Your task to perform on an android device: Open sound settings Image 0: 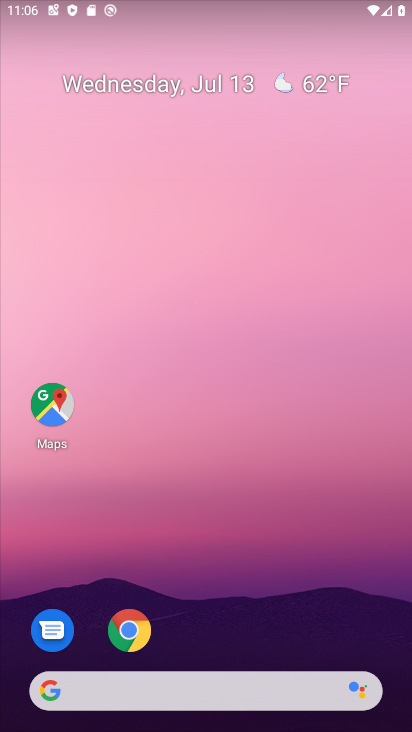
Step 0: drag from (241, 555) to (237, 0)
Your task to perform on an android device: Open sound settings Image 1: 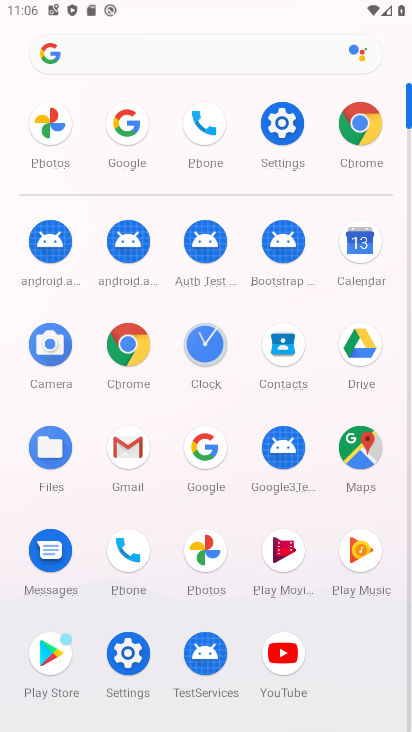
Step 1: click (298, 108)
Your task to perform on an android device: Open sound settings Image 2: 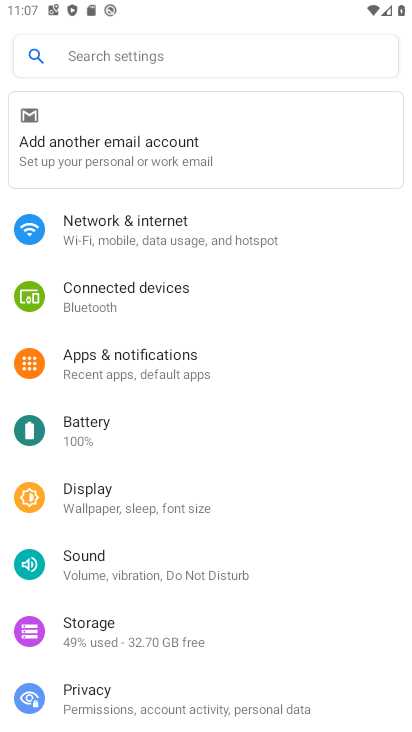
Step 2: click (121, 572)
Your task to perform on an android device: Open sound settings Image 3: 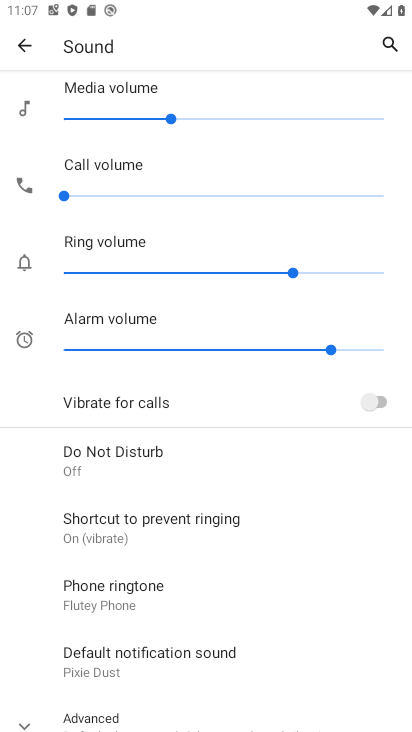
Step 3: task complete